Your task to perform on an android device: change the clock display to digital Image 0: 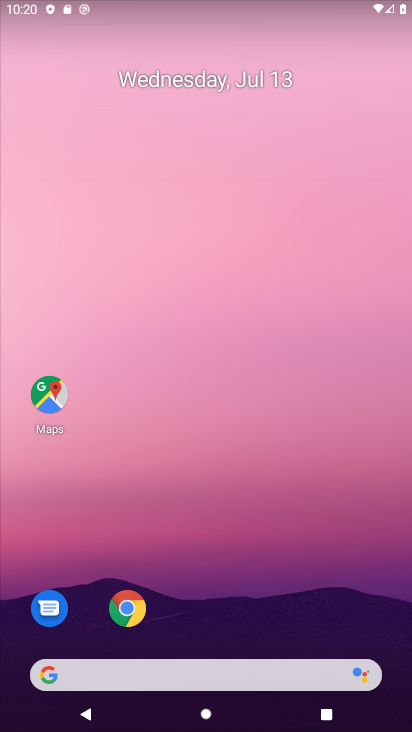
Step 0: press home button
Your task to perform on an android device: change the clock display to digital Image 1: 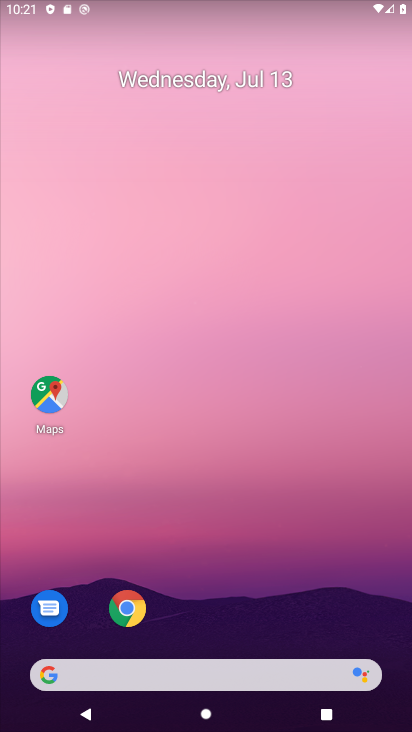
Step 1: drag from (289, 543) to (386, 59)
Your task to perform on an android device: change the clock display to digital Image 2: 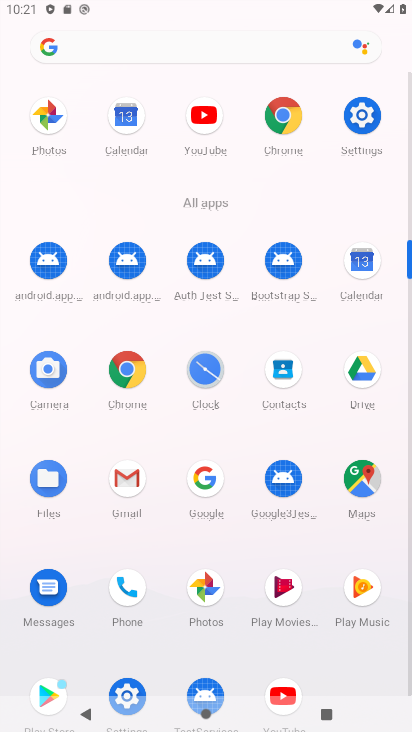
Step 2: click (206, 371)
Your task to perform on an android device: change the clock display to digital Image 3: 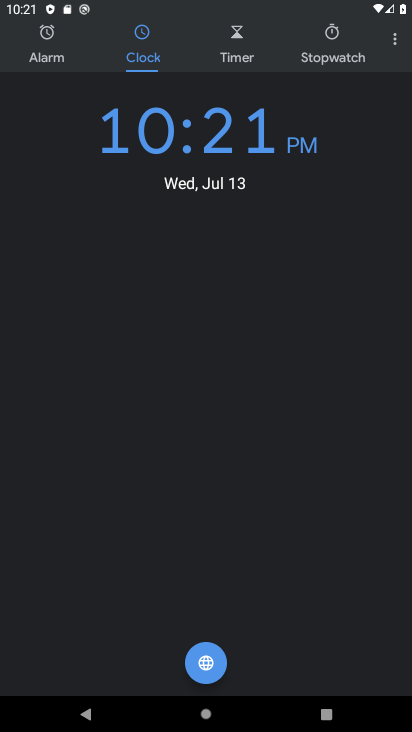
Step 3: click (395, 32)
Your task to perform on an android device: change the clock display to digital Image 4: 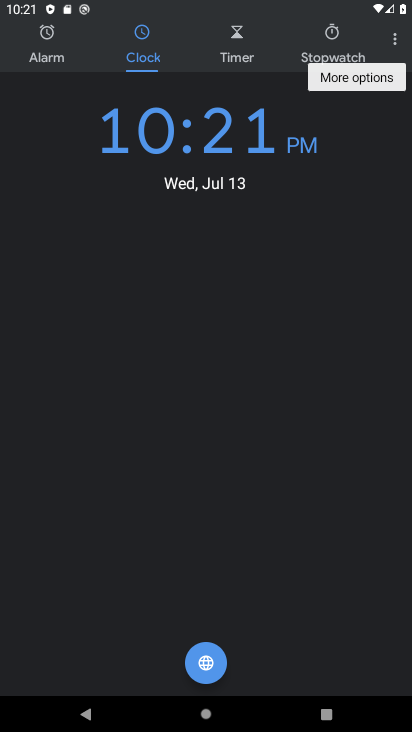
Step 4: click (395, 37)
Your task to perform on an android device: change the clock display to digital Image 5: 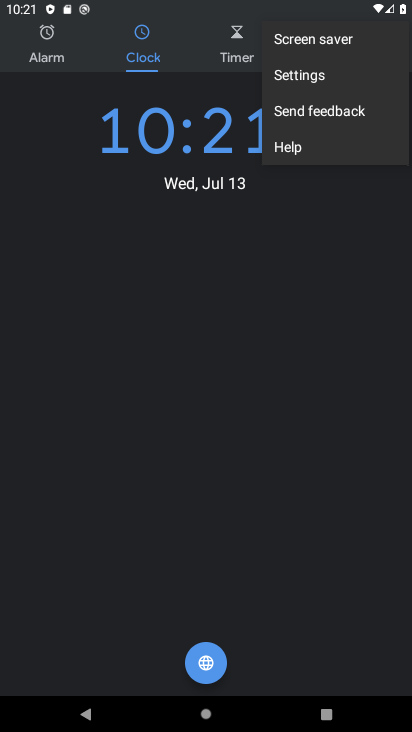
Step 5: click (312, 73)
Your task to perform on an android device: change the clock display to digital Image 6: 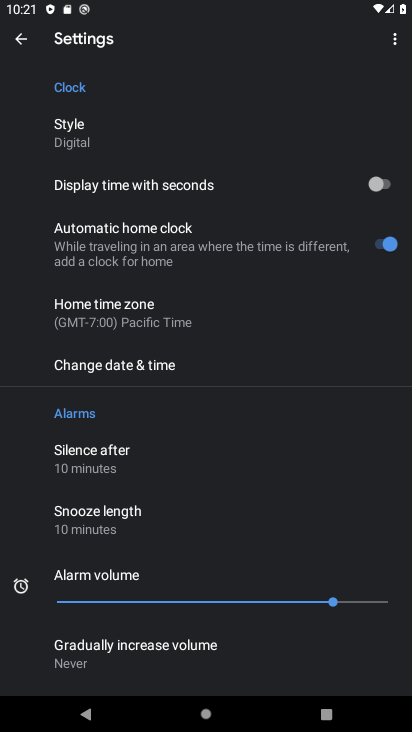
Step 6: task complete